Your task to perform on an android device: When is my next meeting? Image 0: 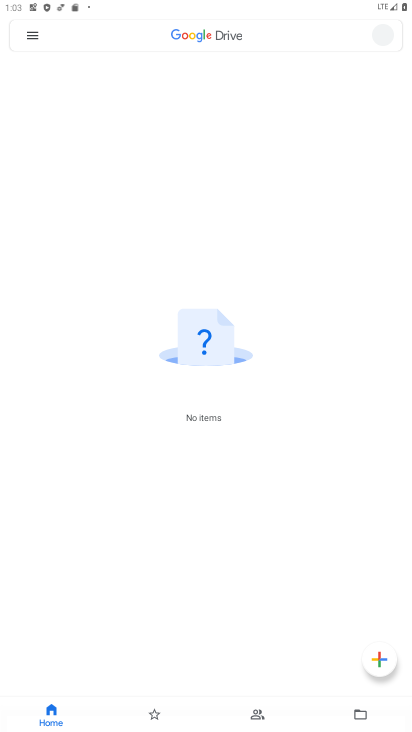
Step 0: drag from (240, 566) to (240, 175)
Your task to perform on an android device: When is my next meeting? Image 1: 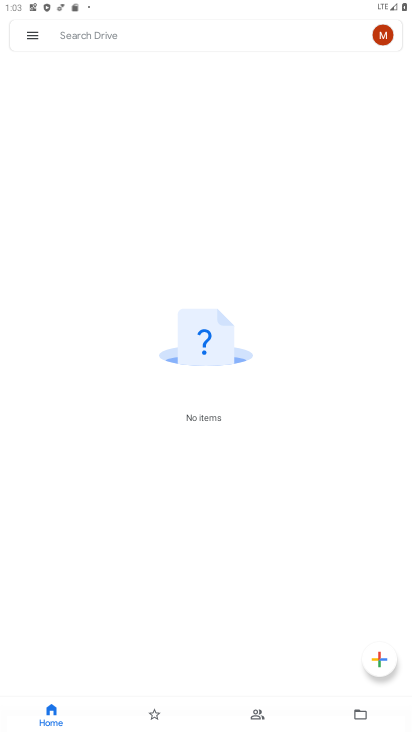
Step 1: press home button
Your task to perform on an android device: When is my next meeting? Image 2: 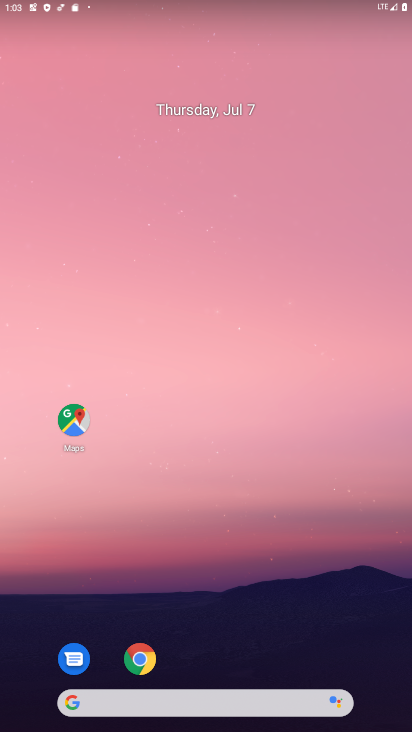
Step 2: drag from (212, 636) to (151, 55)
Your task to perform on an android device: When is my next meeting? Image 3: 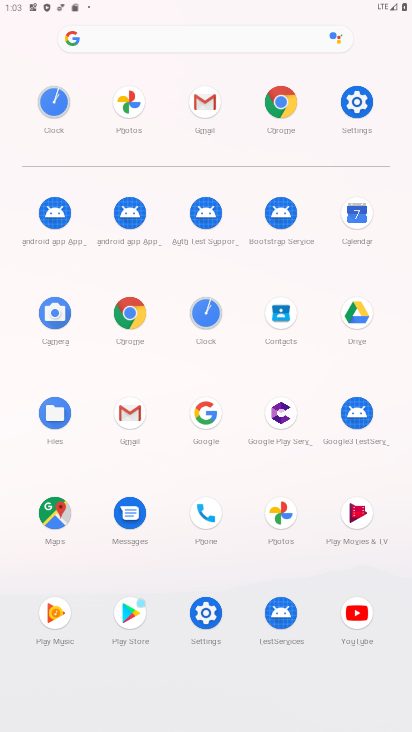
Step 3: click (357, 215)
Your task to perform on an android device: When is my next meeting? Image 4: 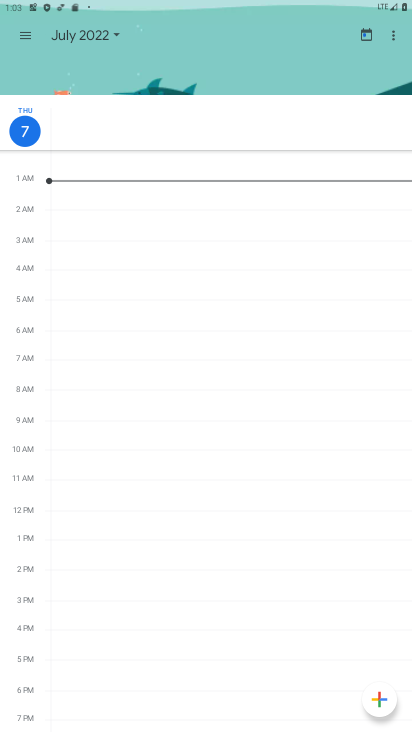
Step 4: click (25, 31)
Your task to perform on an android device: When is my next meeting? Image 5: 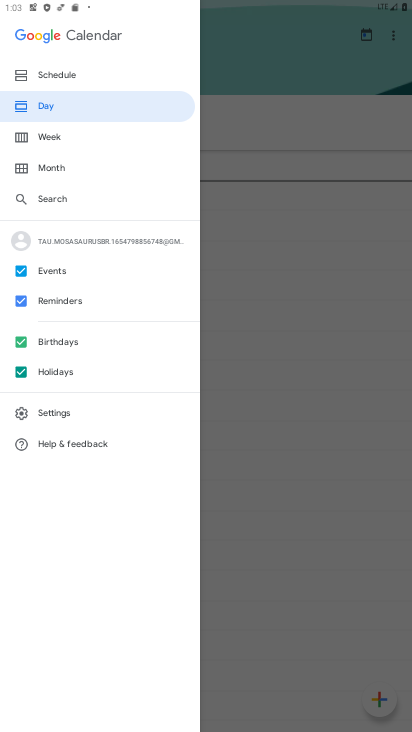
Step 5: click (49, 134)
Your task to perform on an android device: When is my next meeting? Image 6: 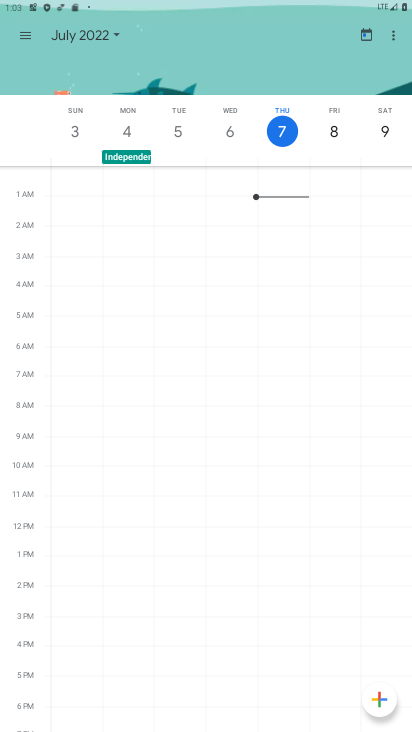
Step 6: task complete